Your task to perform on an android device: change text size in settings app Image 0: 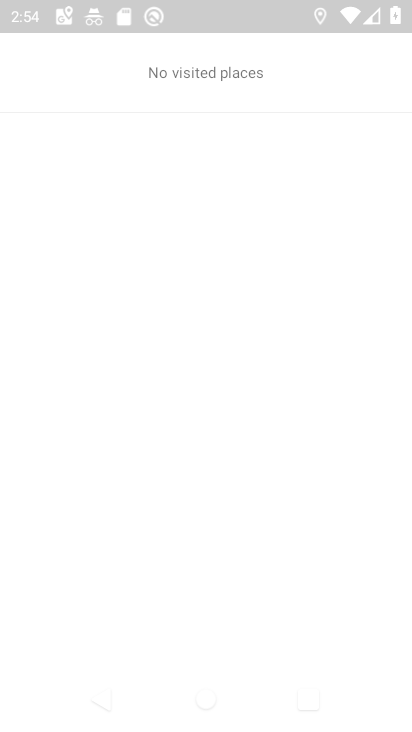
Step 0: press home button
Your task to perform on an android device: change text size in settings app Image 1: 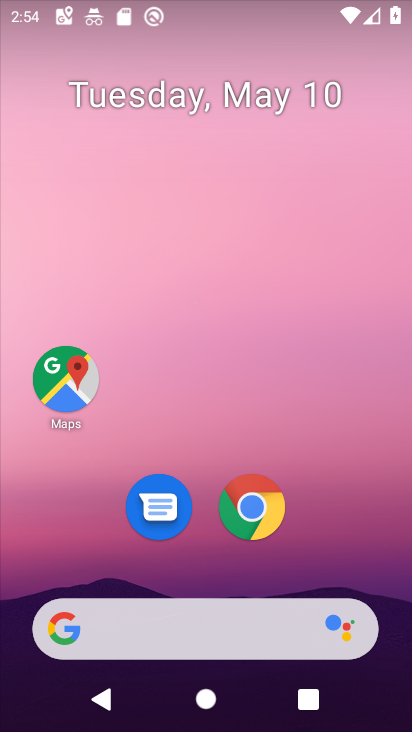
Step 1: drag from (230, 564) to (237, 153)
Your task to perform on an android device: change text size in settings app Image 2: 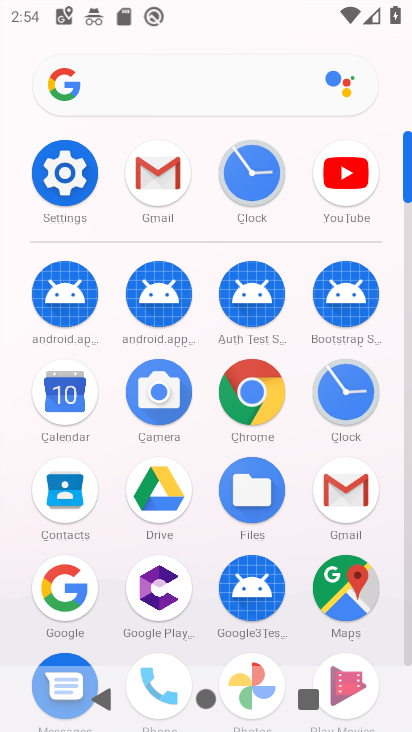
Step 2: drag from (205, 533) to (280, 188)
Your task to perform on an android device: change text size in settings app Image 3: 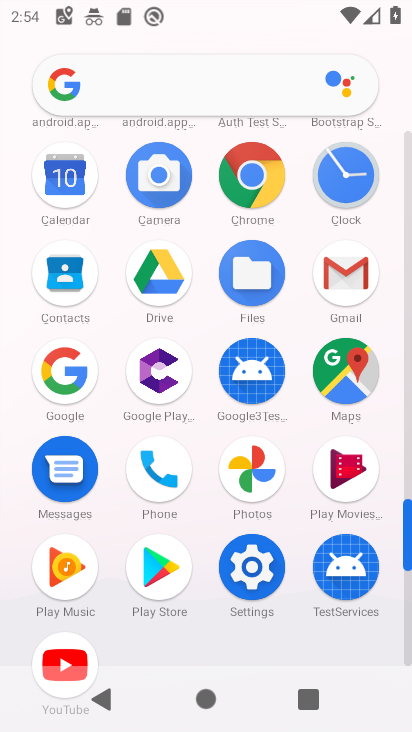
Step 3: click (250, 564)
Your task to perform on an android device: change text size in settings app Image 4: 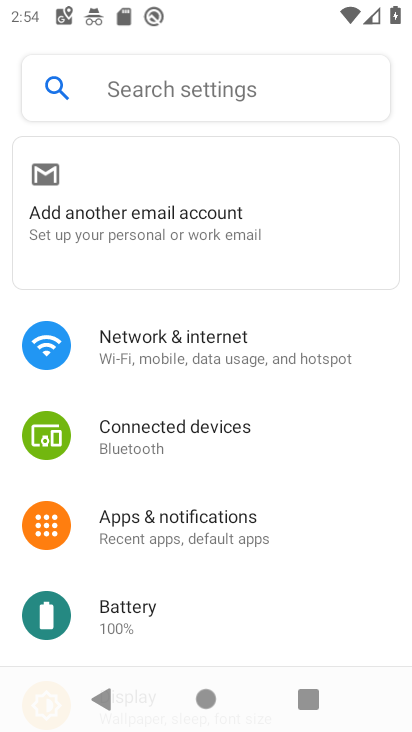
Step 4: drag from (156, 568) to (213, 258)
Your task to perform on an android device: change text size in settings app Image 5: 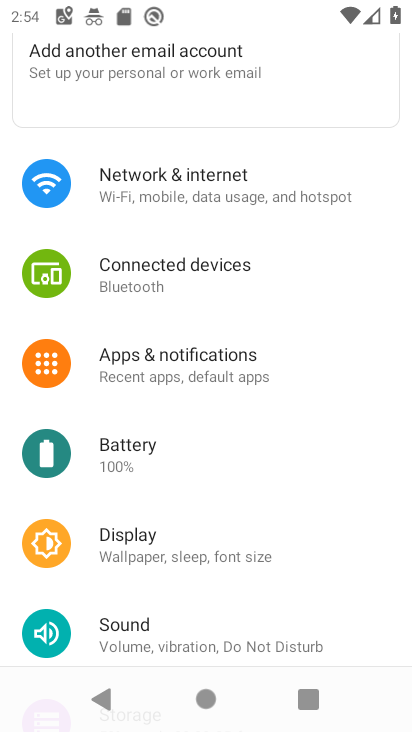
Step 5: click (162, 557)
Your task to perform on an android device: change text size in settings app Image 6: 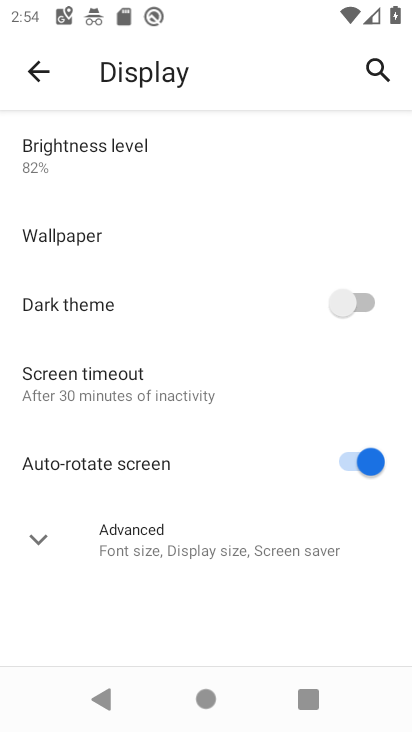
Step 6: click (30, 534)
Your task to perform on an android device: change text size in settings app Image 7: 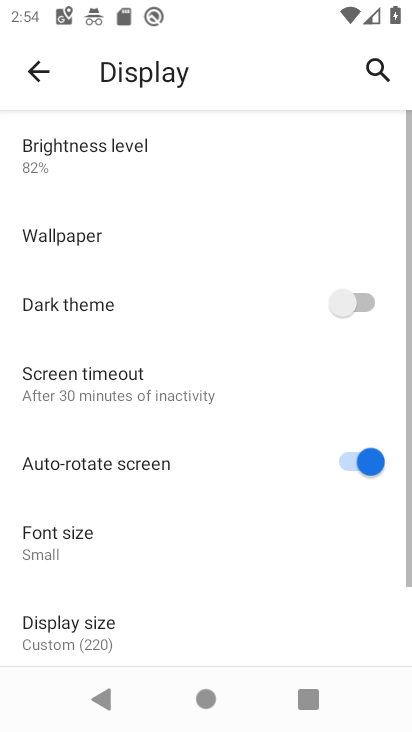
Step 7: drag from (142, 509) to (193, 178)
Your task to perform on an android device: change text size in settings app Image 8: 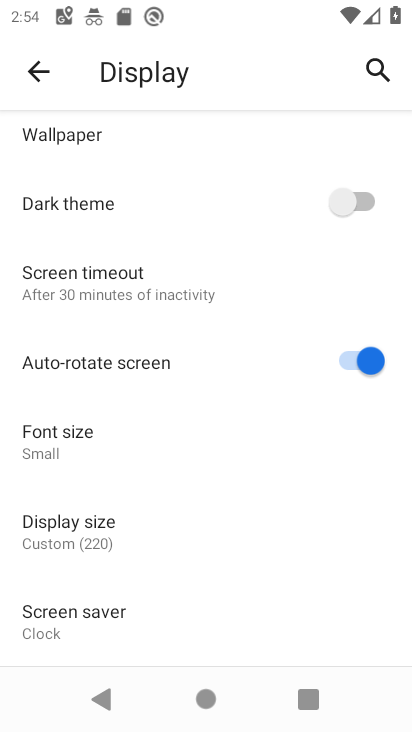
Step 8: click (37, 442)
Your task to perform on an android device: change text size in settings app Image 9: 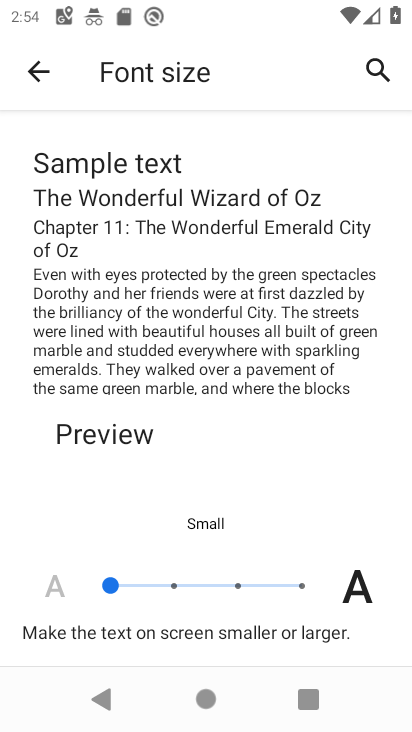
Step 9: click (137, 591)
Your task to perform on an android device: change text size in settings app Image 10: 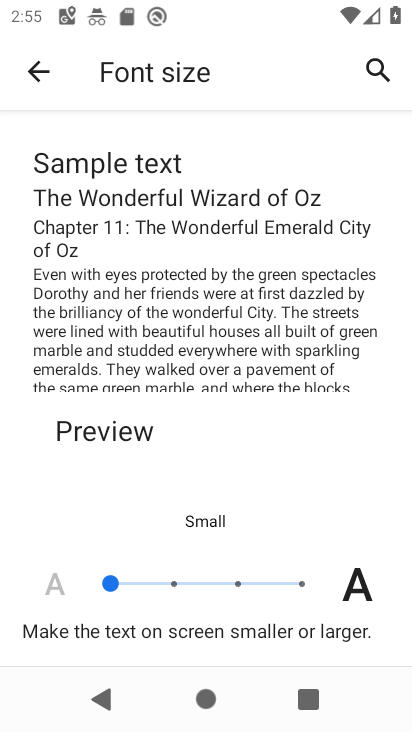
Step 10: click (141, 582)
Your task to perform on an android device: change text size in settings app Image 11: 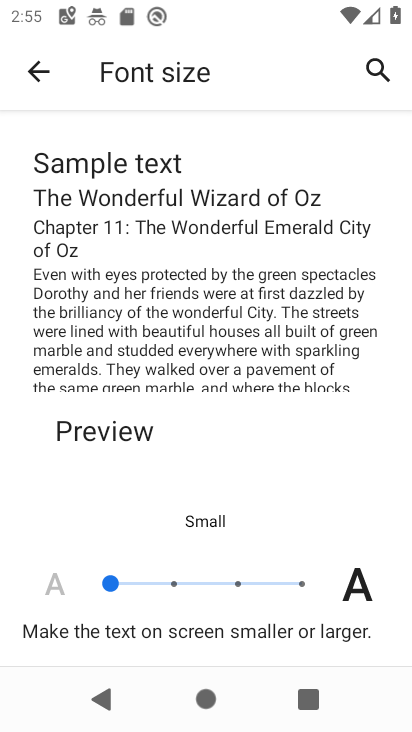
Step 11: click (138, 579)
Your task to perform on an android device: change text size in settings app Image 12: 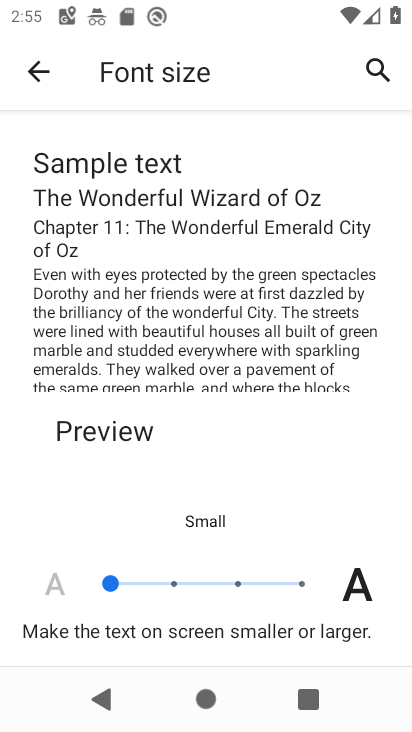
Step 12: task complete